Your task to perform on an android device: When is my next meeting? Image 0: 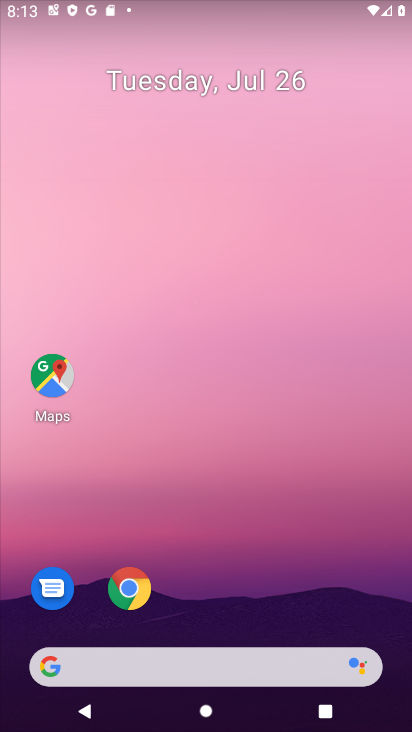
Step 0: press home button
Your task to perform on an android device: When is my next meeting? Image 1: 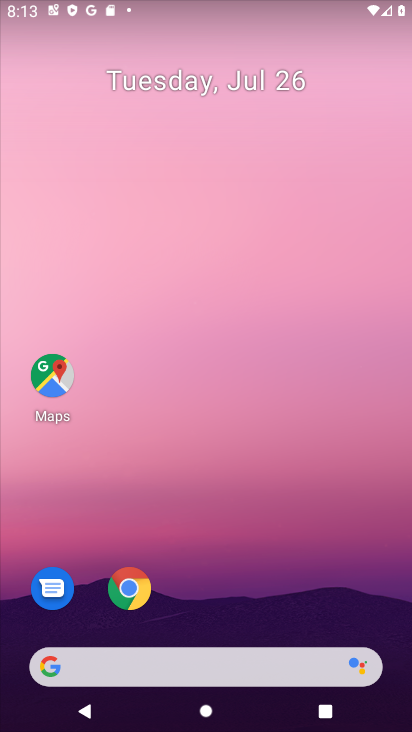
Step 1: drag from (231, 486) to (230, 115)
Your task to perform on an android device: When is my next meeting? Image 2: 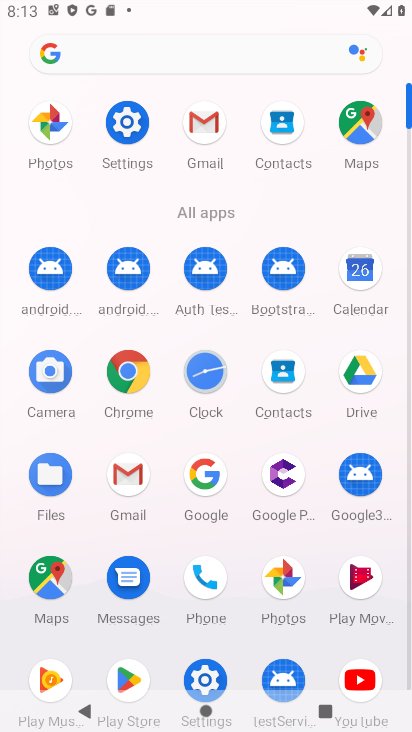
Step 2: click (353, 277)
Your task to perform on an android device: When is my next meeting? Image 3: 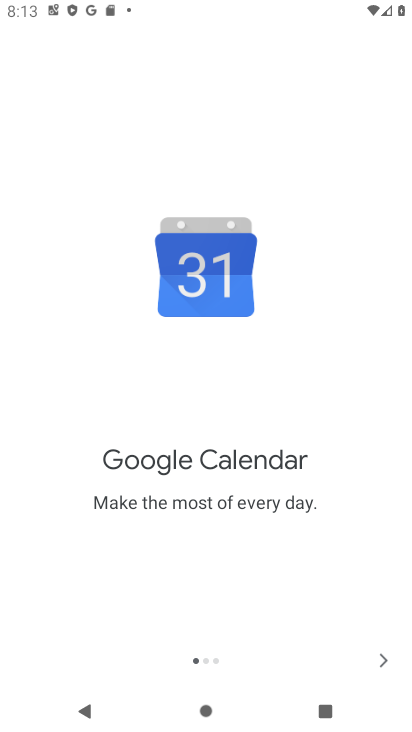
Step 3: click (378, 659)
Your task to perform on an android device: When is my next meeting? Image 4: 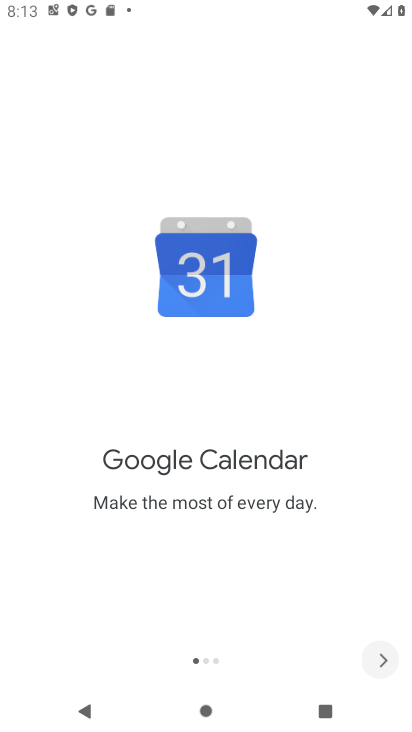
Step 4: click (378, 659)
Your task to perform on an android device: When is my next meeting? Image 5: 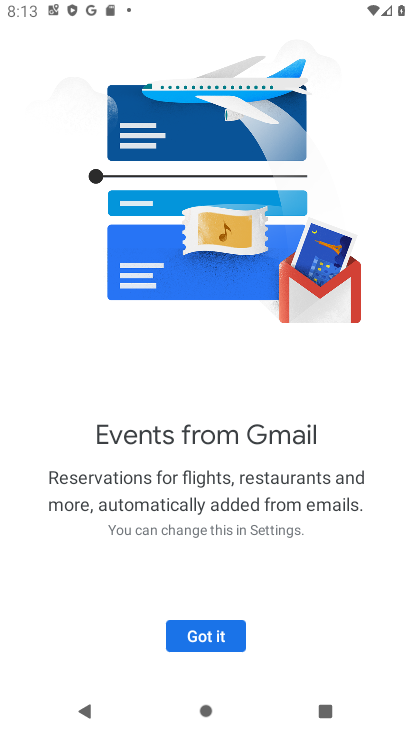
Step 5: click (185, 633)
Your task to perform on an android device: When is my next meeting? Image 6: 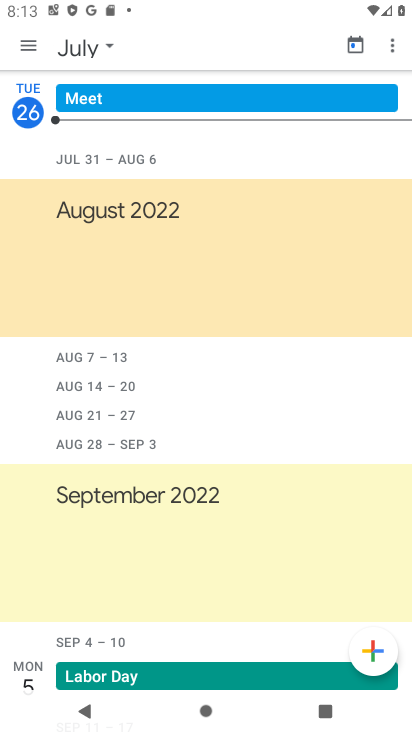
Step 6: task complete